Your task to perform on an android device: open app "Google Pay: Save, Pay, Manage" (install if not already installed) Image 0: 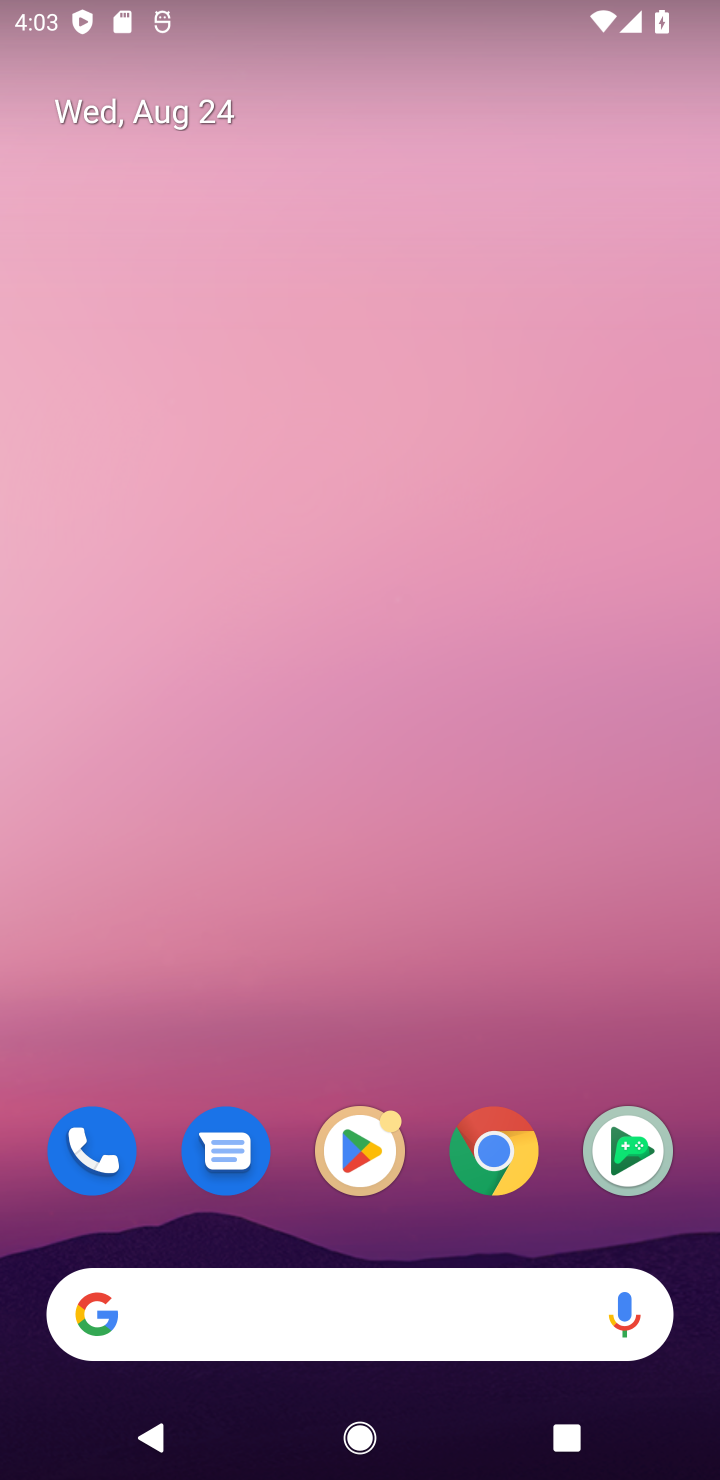
Step 0: click (360, 1168)
Your task to perform on an android device: open app "Google Pay: Save, Pay, Manage" (install if not already installed) Image 1: 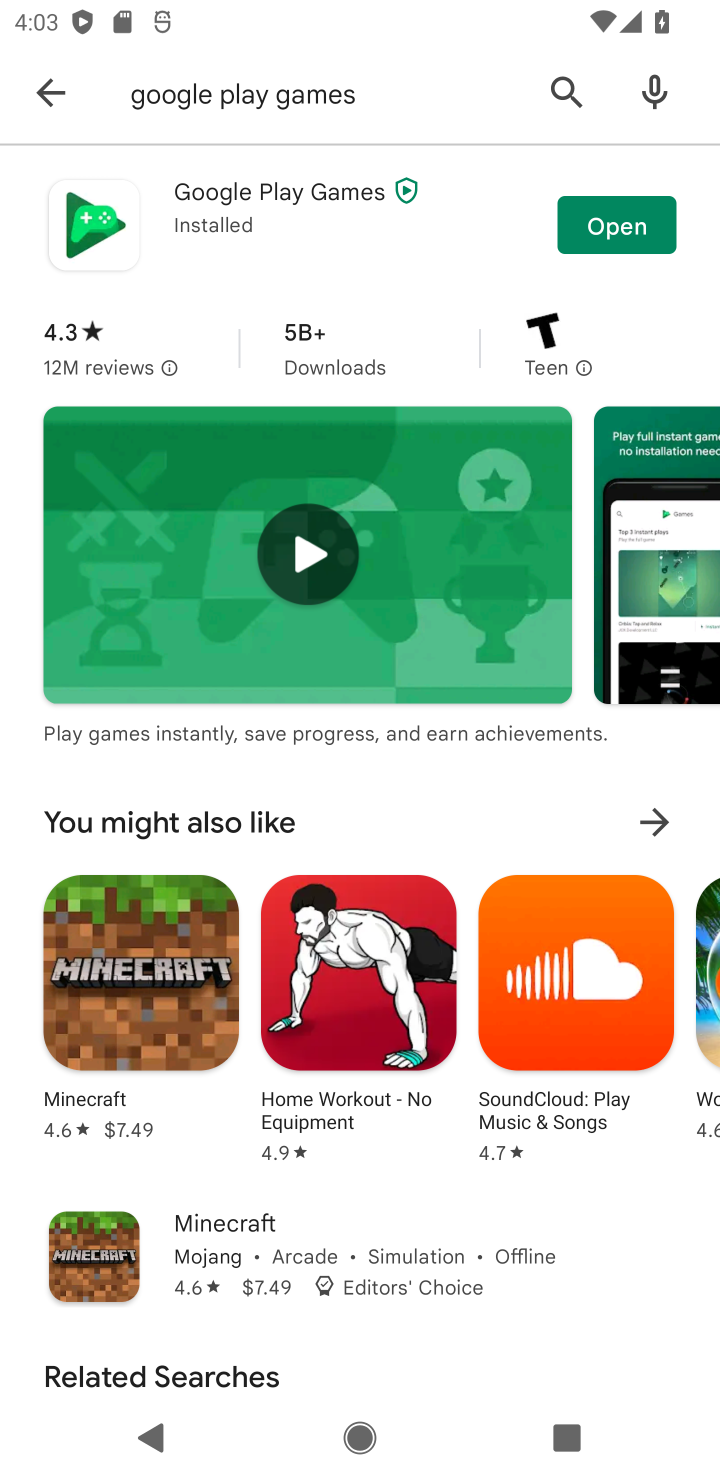
Step 1: click (580, 65)
Your task to perform on an android device: open app "Google Pay: Save, Pay, Manage" (install if not already installed) Image 2: 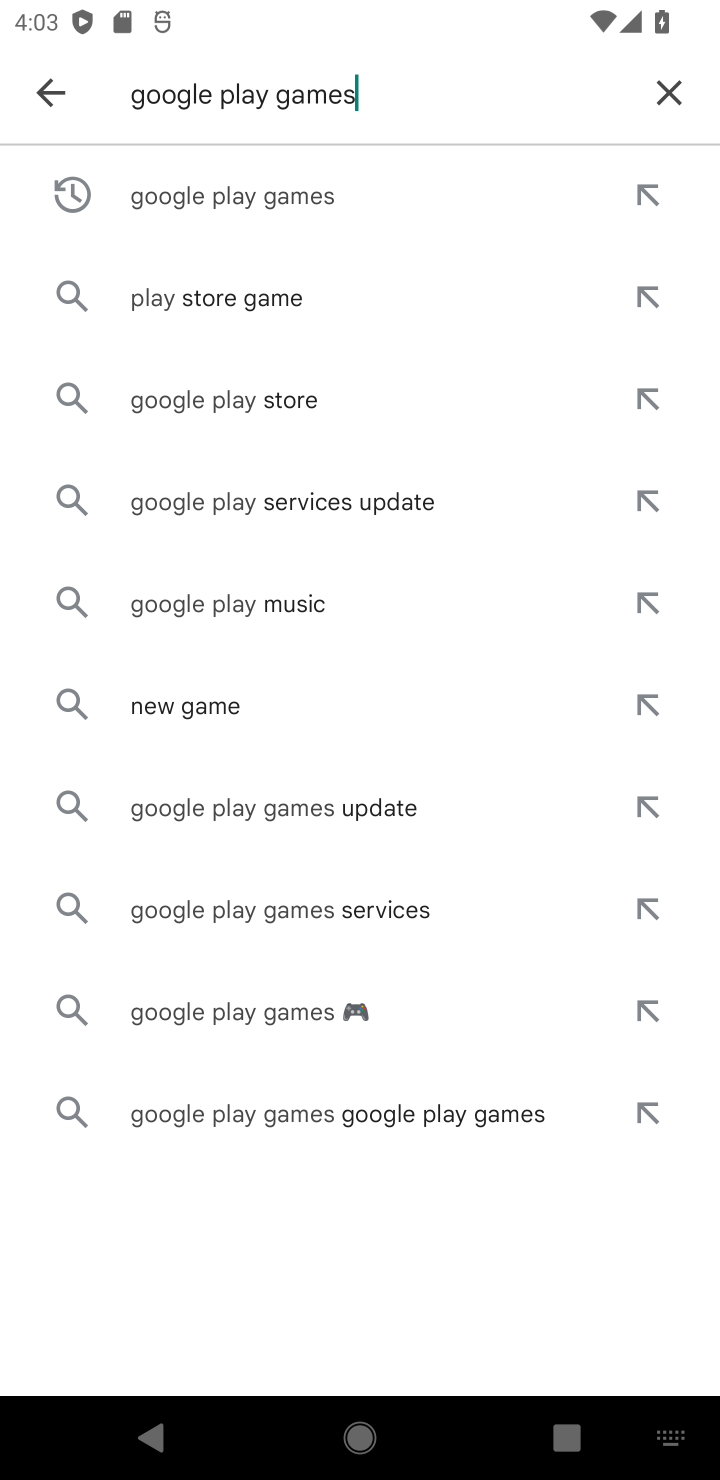
Step 2: click (666, 92)
Your task to perform on an android device: open app "Google Pay: Save, Pay, Manage" (install if not already installed) Image 3: 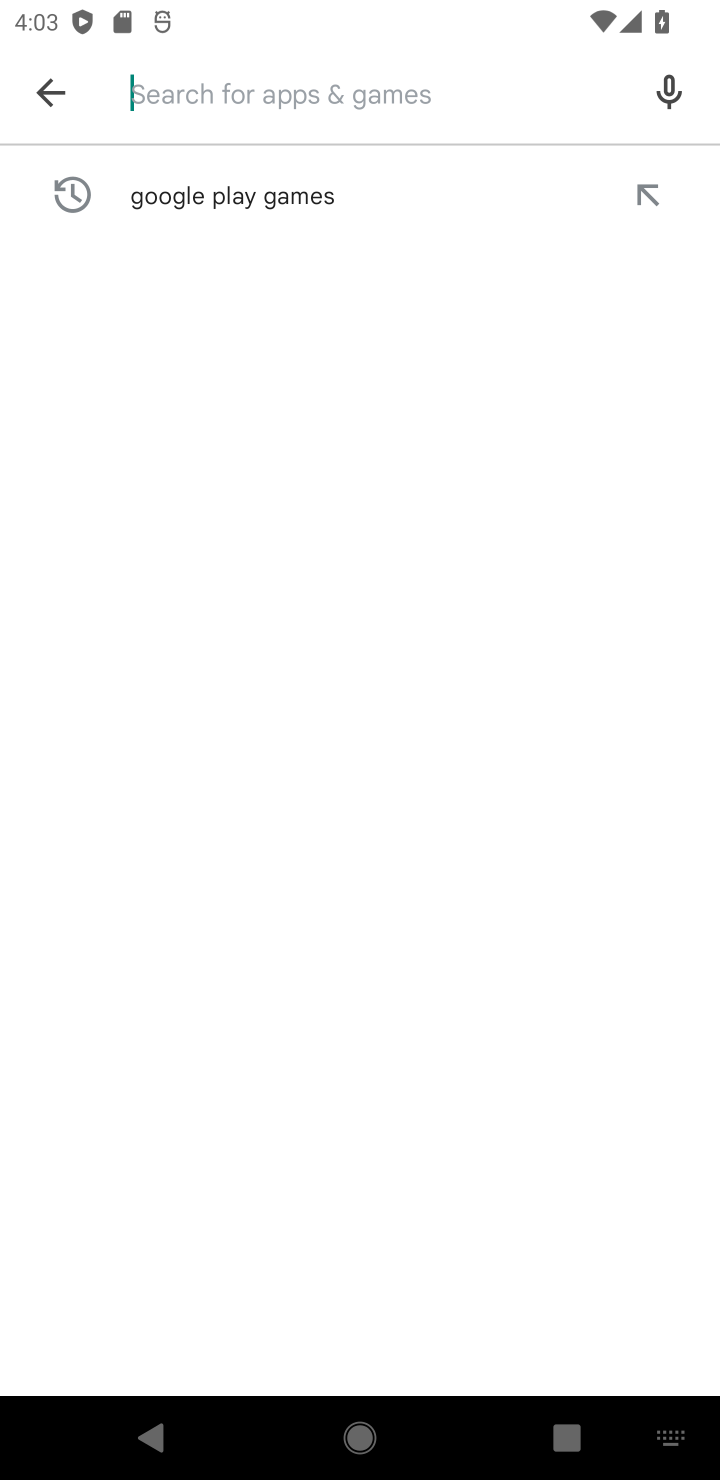
Step 3: type "Google Pay: Save, Pay, Manage""
Your task to perform on an android device: open app "Google Pay: Save, Pay, Manage" (install if not already installed) Image 4: 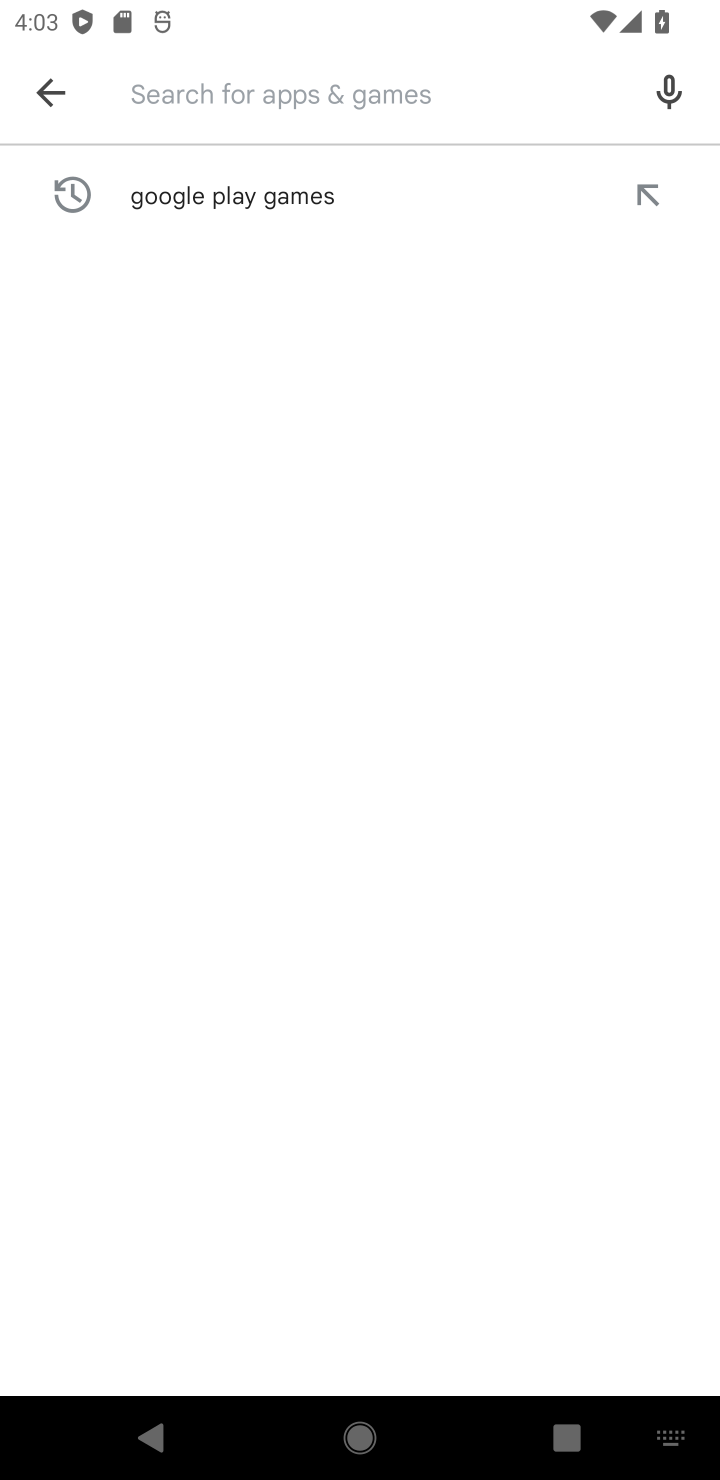
Step 4: click (275, 1465)
Your task to perform on an android device: open app "Google Pay: Save, Pay, Manage" (install if not already installed) Image 5: 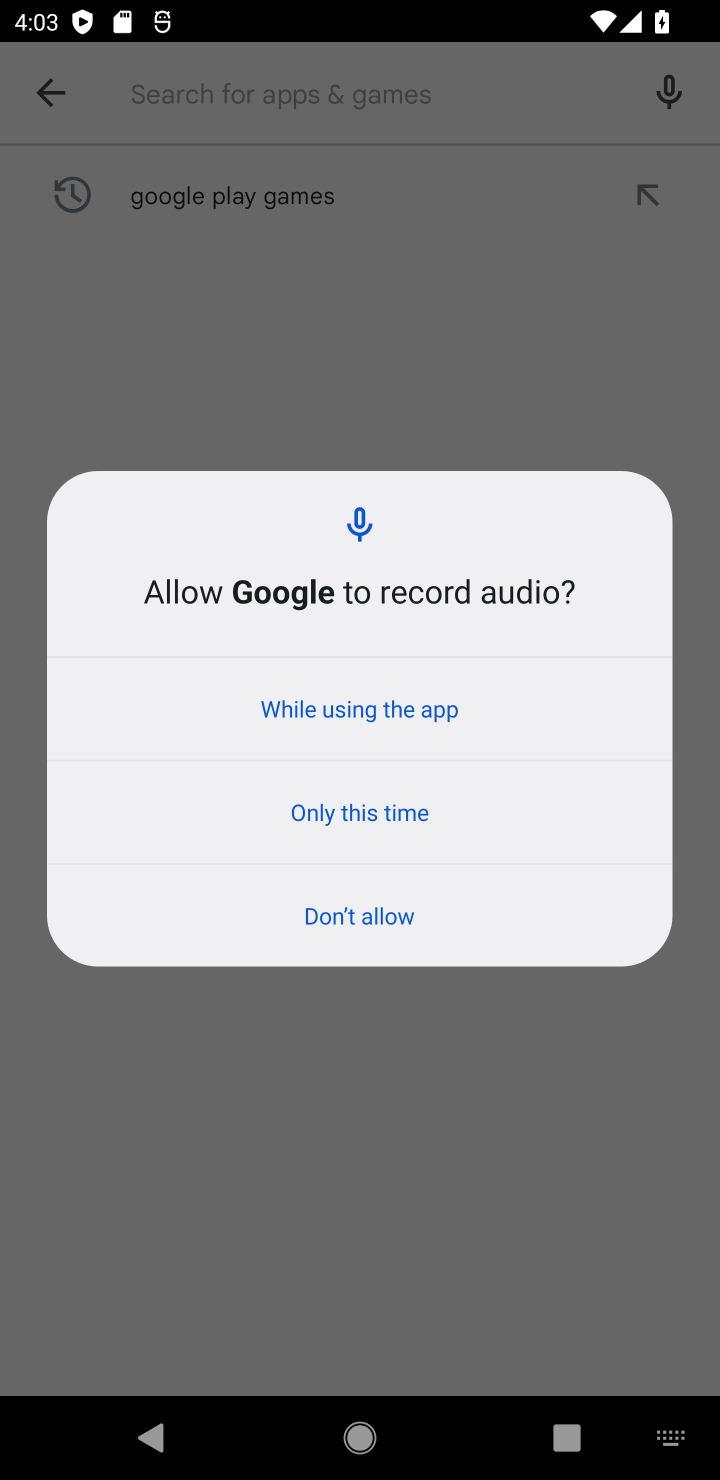
Step 5: type "Google Pay: Save, Pay, Manage"
Your task to perform on an android device: open app "Google Pay: Save, Pay, Manage" (install if not already installed) Image 6: 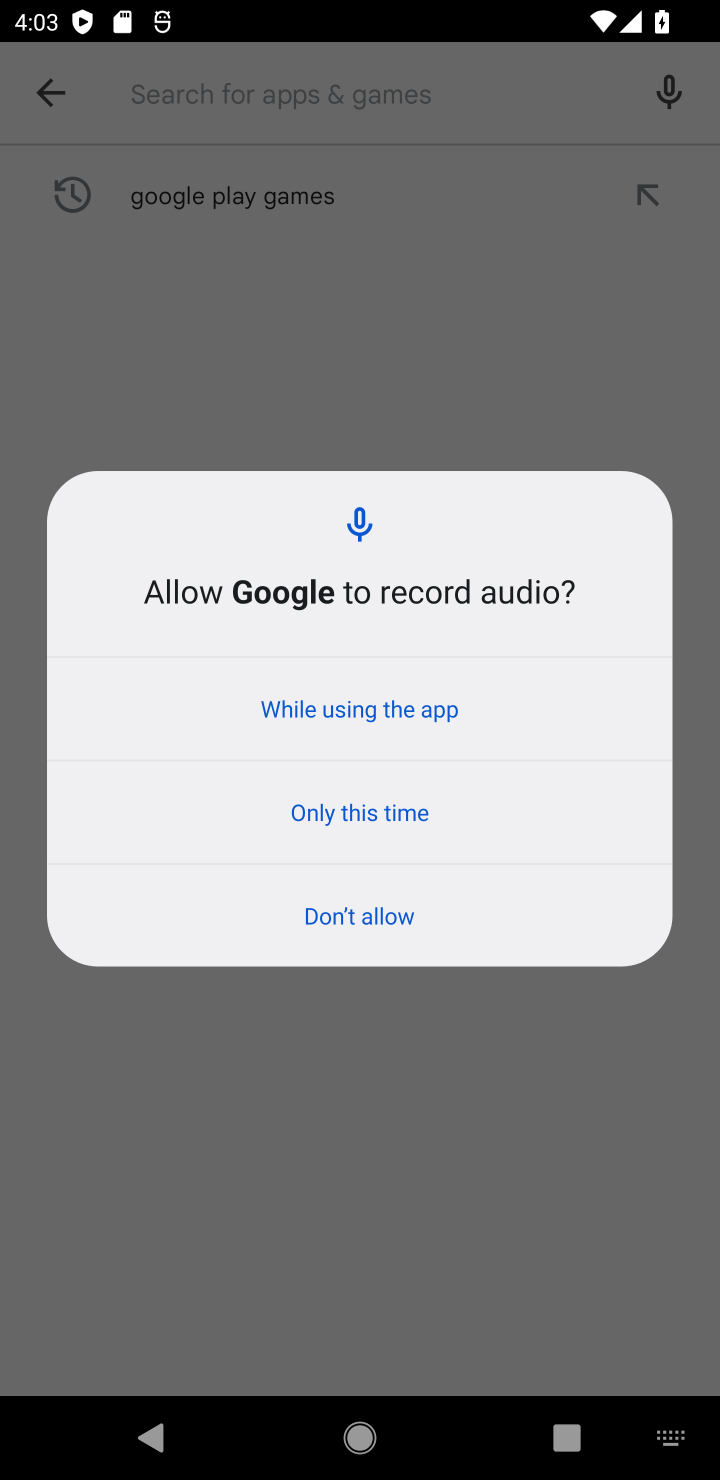
Step 6: click (710, 826)
Your task to perform on an android device: open app "Google Pay: Save, Pay, Manage" (install if not already installed) Image 7: 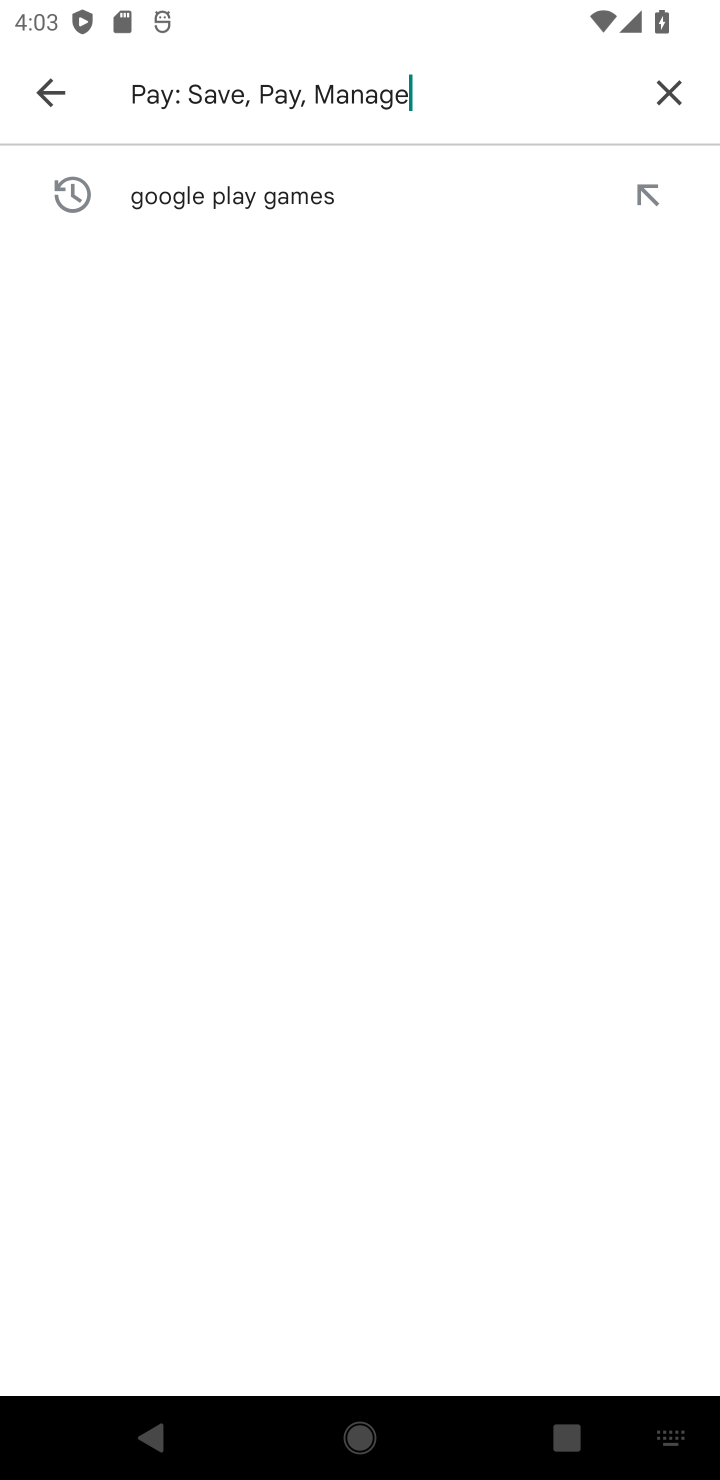
Step 7: type ""
Your task to perform on an android device: open app "Google Pay: Save, Pay, Manage" (install if not already installed) Image 8: 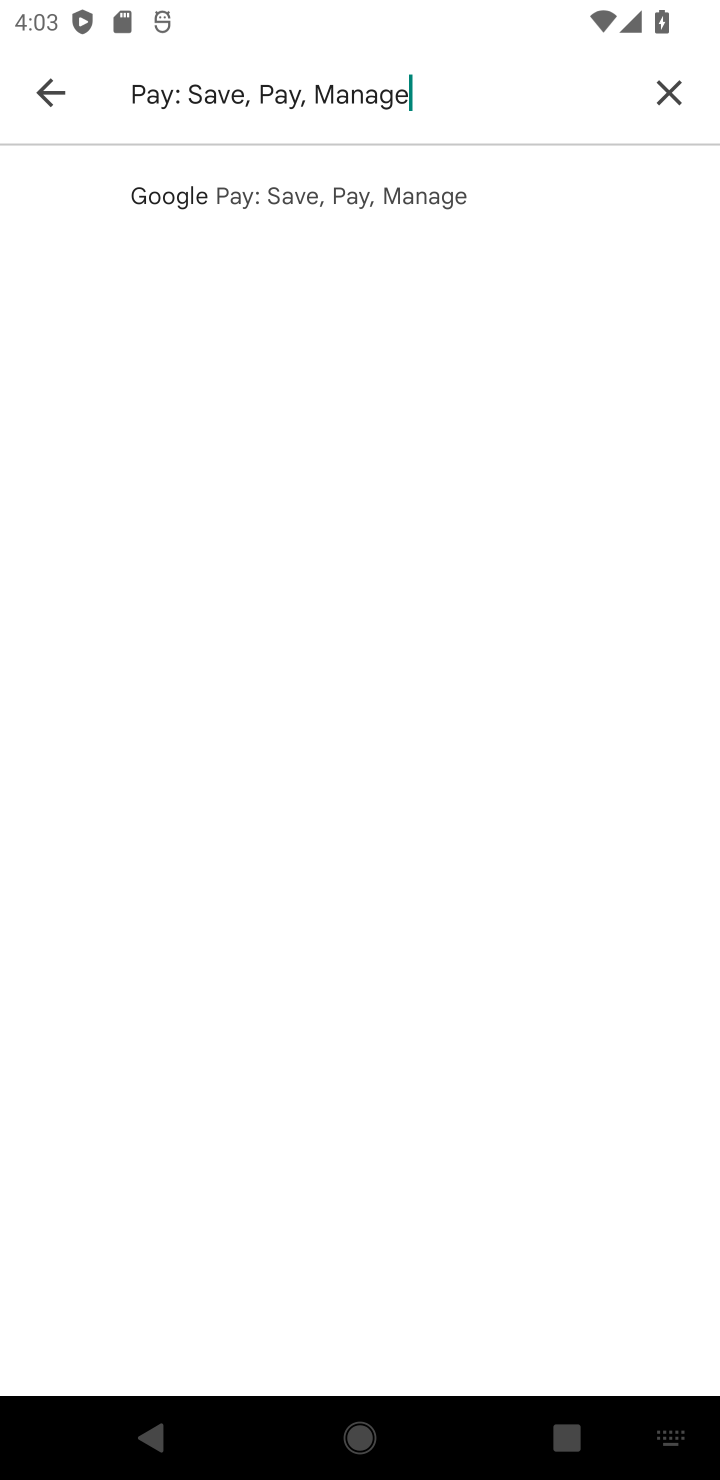
Step 8: click (445, 719)
Your task to perform on an android device: open app "Google Pay: Save, Pay, Manage" (install if not already installed) Image 9: 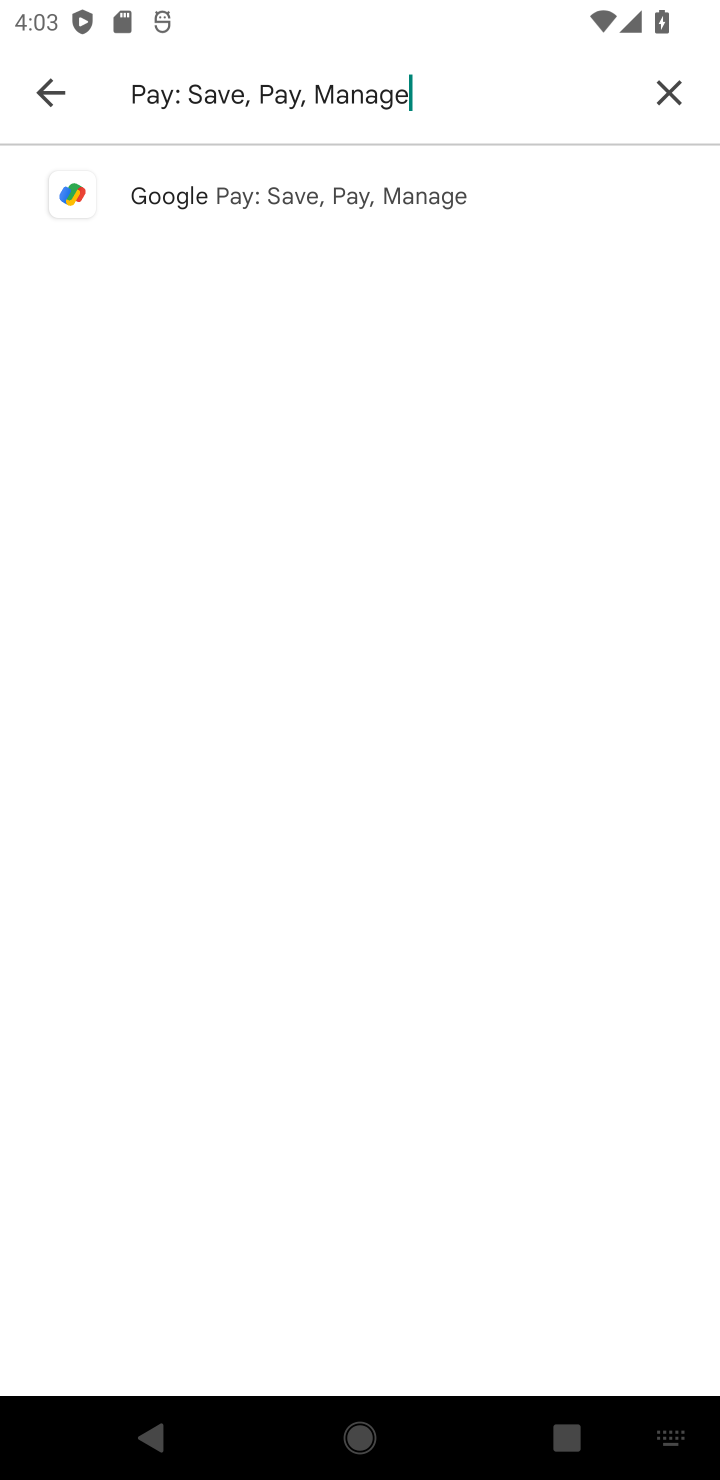
Step 9: click (458, 180)
Your task to perform on an android device: open app "Google Pay: Save, Pay, Manage" (install if not already installed) Image 10: 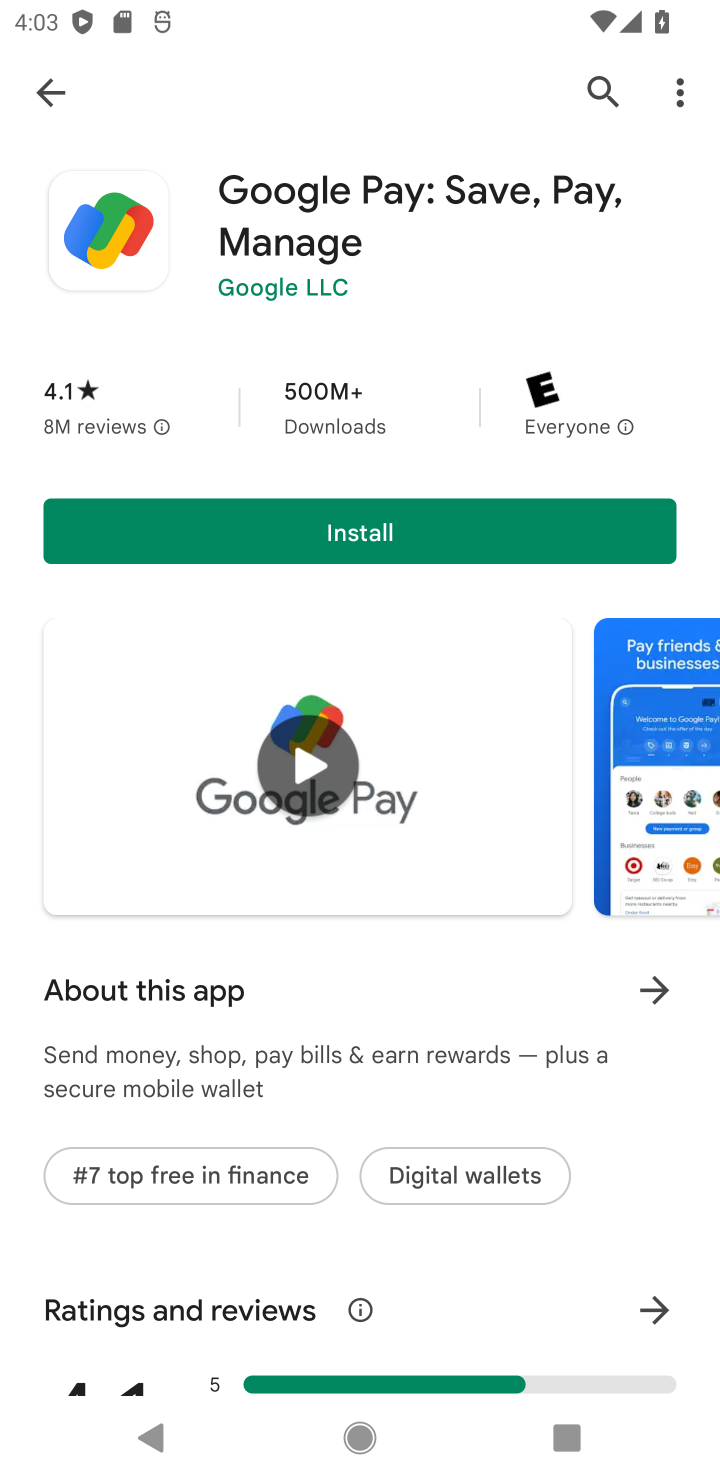
Step 10: click (541, 548)
Your task to perform on an android device: open app "Google Pay: Save, Pay, Manage" (install if not already installed) Image 11: 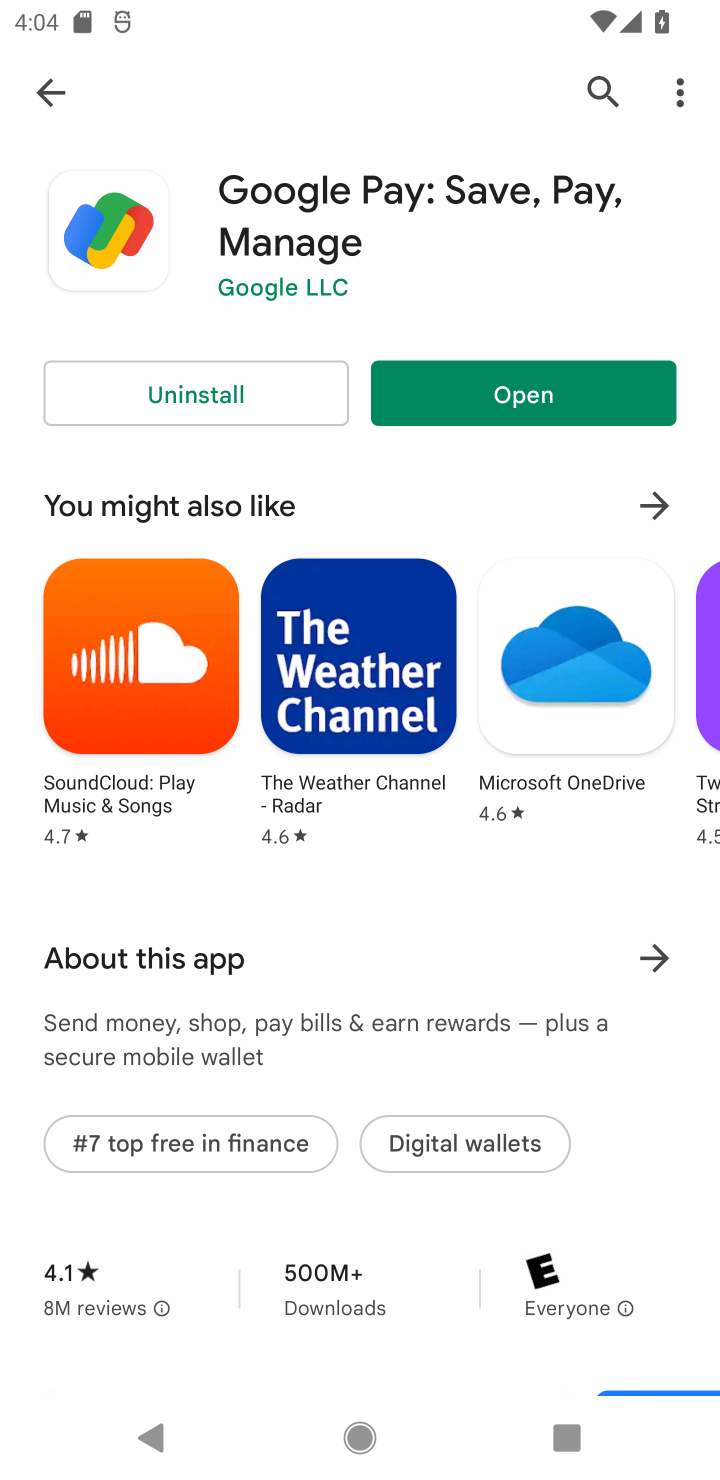
Step 11: click (462, 412)
Your task to perform on an android device: open app "Google Pay: Save, Pay, Manage" (install if not already installed) Image 12: 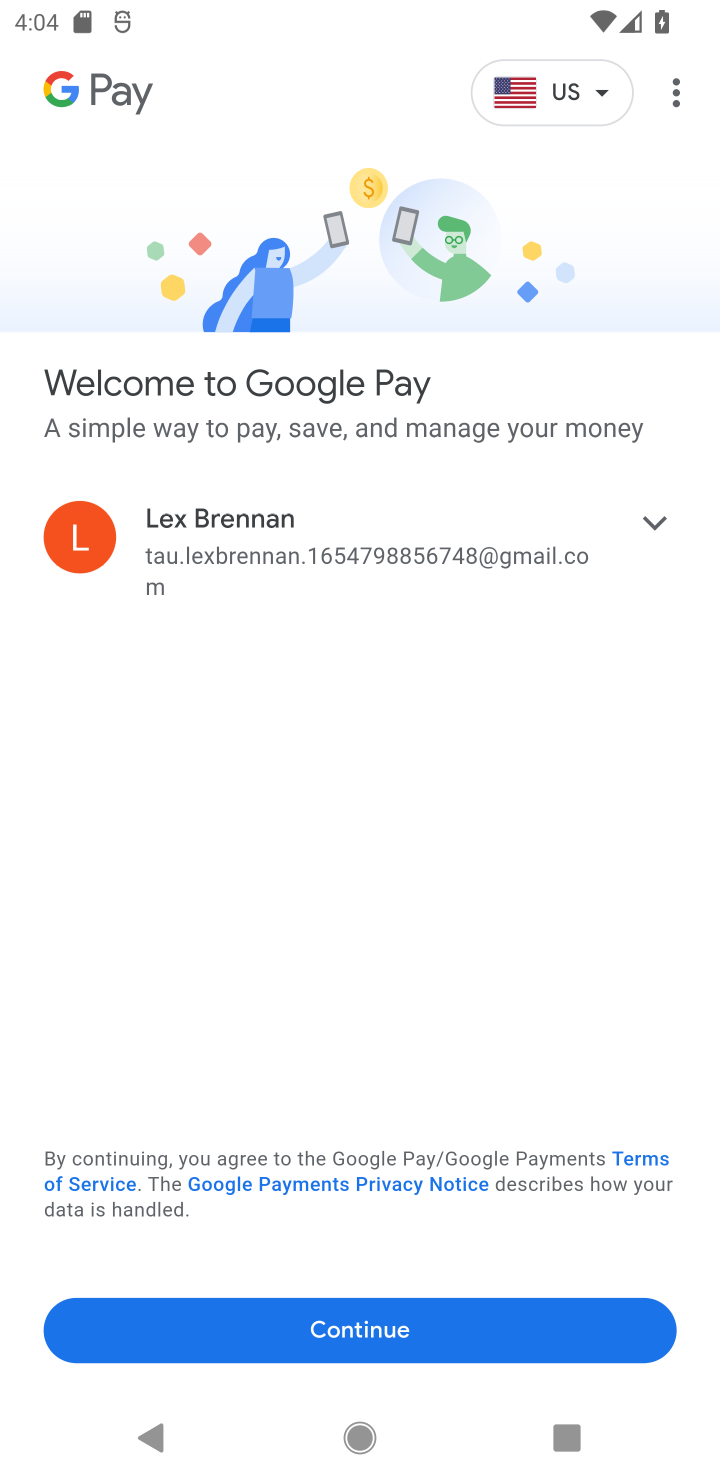
Step 12: click (406, 1309)
Your task to perform on an android device: open app "Google Pay: Save, Pay, Manage" (install if not already installed) Image 13: 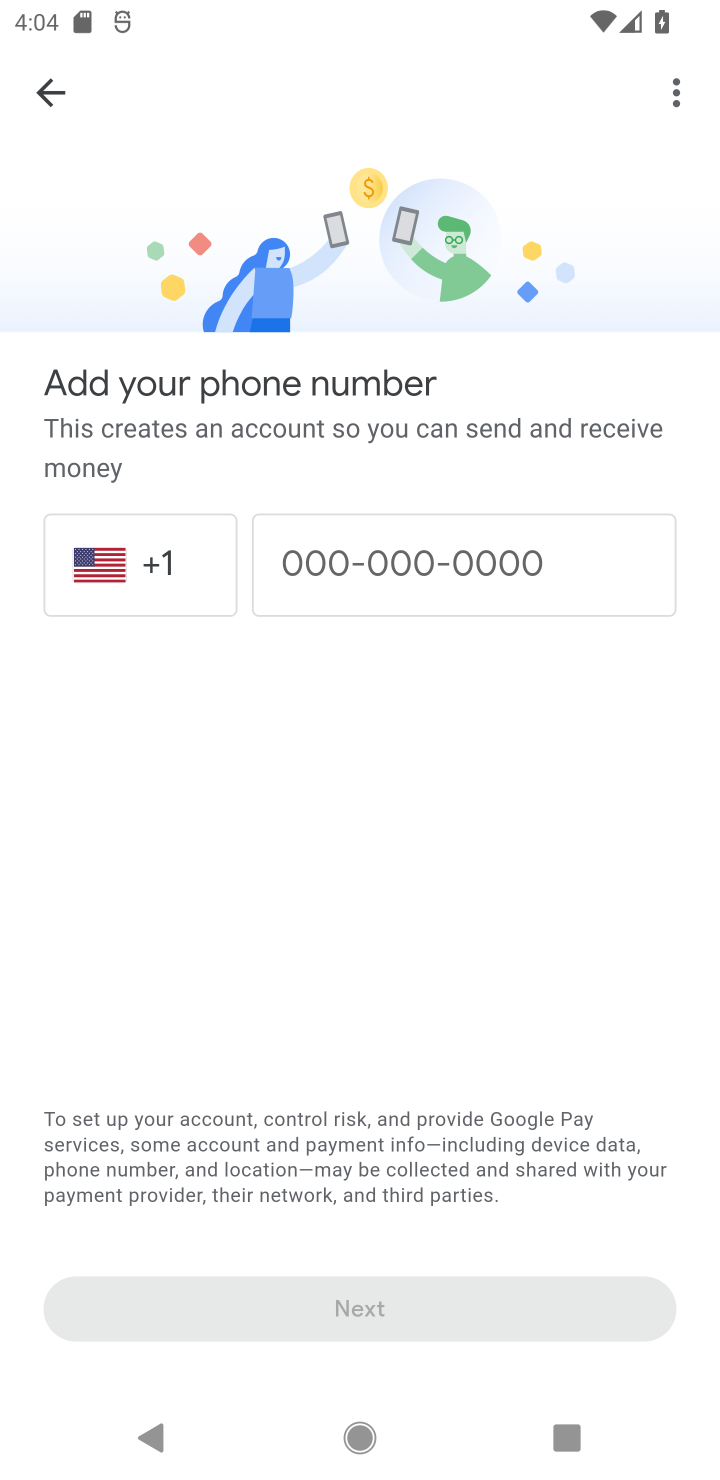
Step 13: task complete